Your task to perform on an android device: turn on priority inbox in the gmail app Image 0: 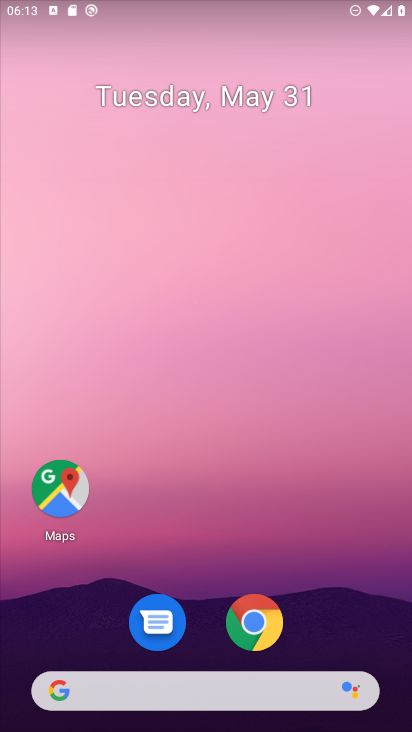
Step 0: drag from (294, 687) to (331, 0)
Your task to perform on an android device: turn on priority inbox in the gmail app Image 1: 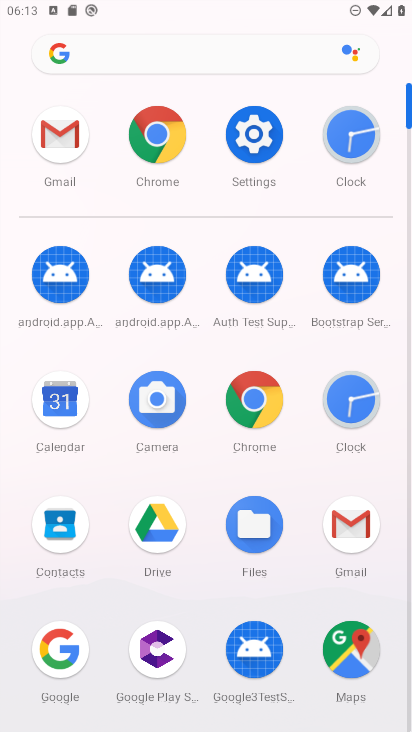
Step 1: click (355, 528)
Your task to perform on an android device: turn on priority inbox in the gmail app Image 2: 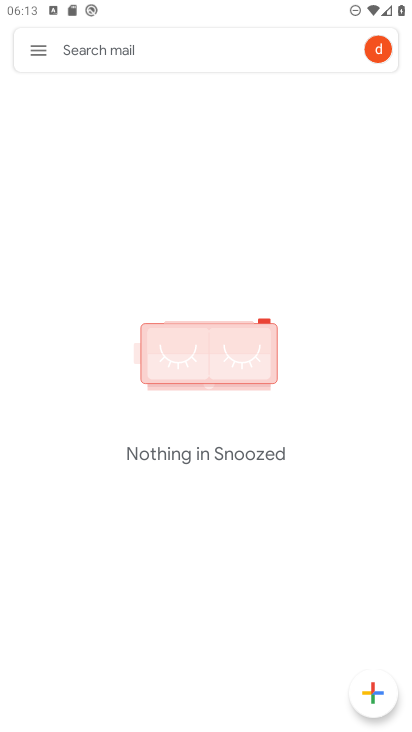
Step 2: click (38, 50)
Your task to perform on an android device: turn on priority inbox in the gmail app Image 3: 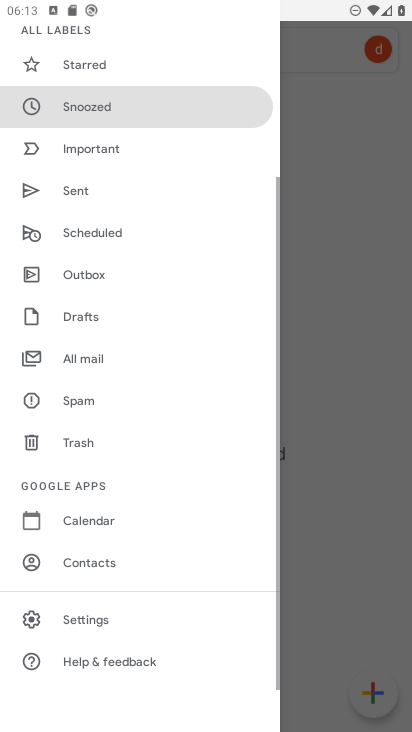
Step 3: click (142, 623)
Your task to perform on an android device: turn on priority inbox in the gmail app Image 4: 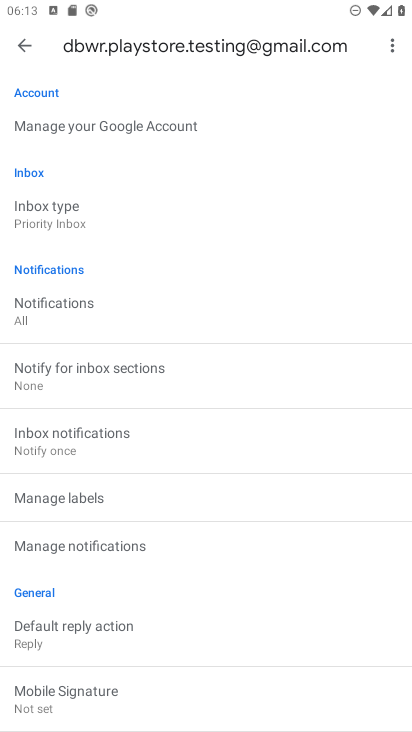
Step 4: click (75, 232)
Your task to perform on an android device: turn on priority inbox in the gmail app Image 5: 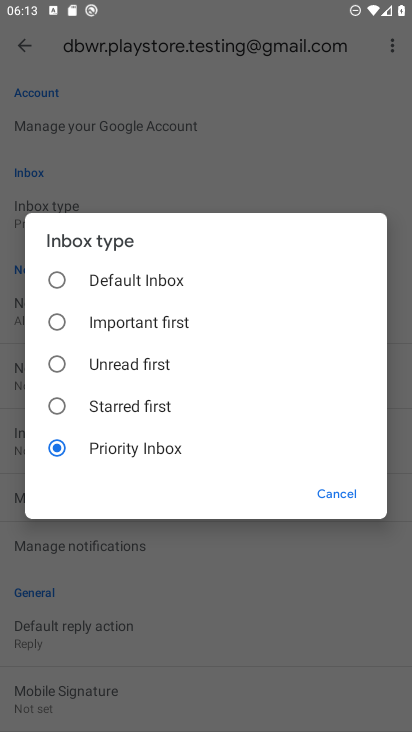
Step 5: task complete